Your task to perform on an android device: toggle notifications settings in the gmail app Image 0: 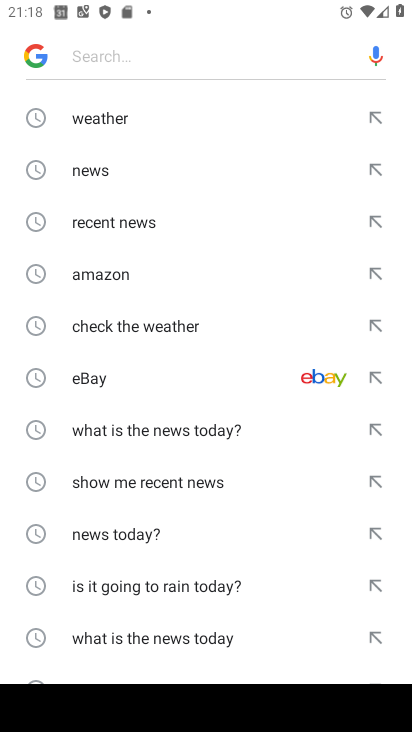
Step 0: press home button
Your task to perform on an android device: toggle notifications settings in the gmail app Image 1: 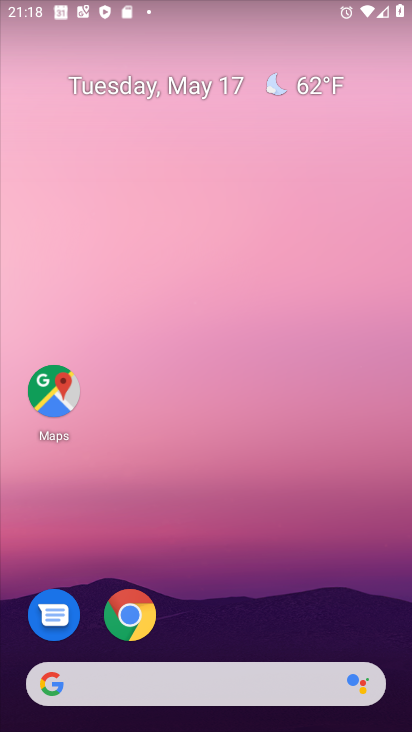
Step 1: drag from (210, 587) to (235, 58)
Your task to perform on an android device: toggle notifications settings in the gmail app Image 2: 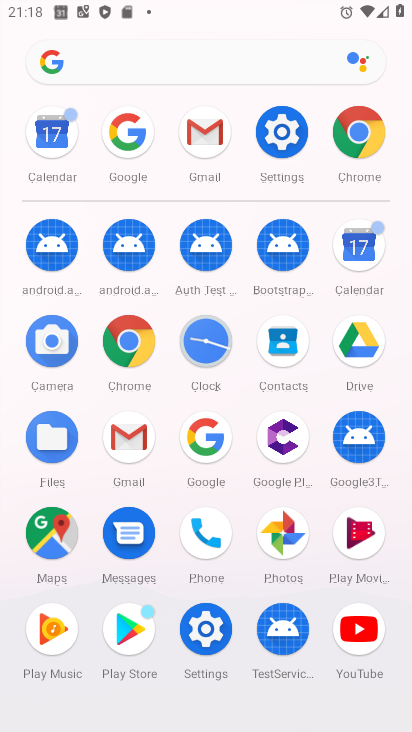
Step 2: click (202, 135)
Your task to perform on an android device: toggle notifications settings in the gmail app Image 3: 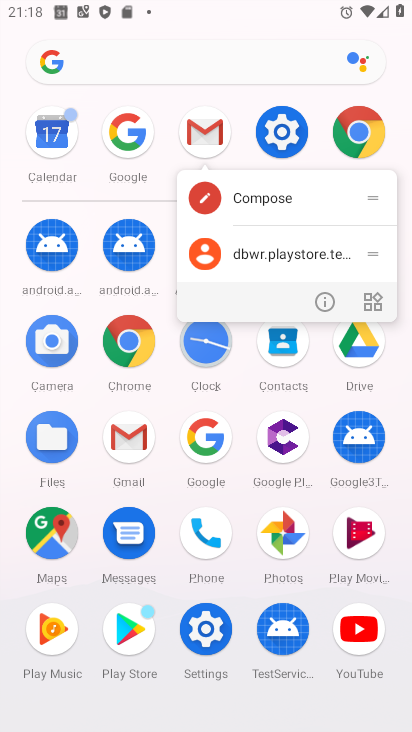
Step 3: click (328, 298)
Your task to perform on an android device: toggle notifications settings in the gmail app Image 4: 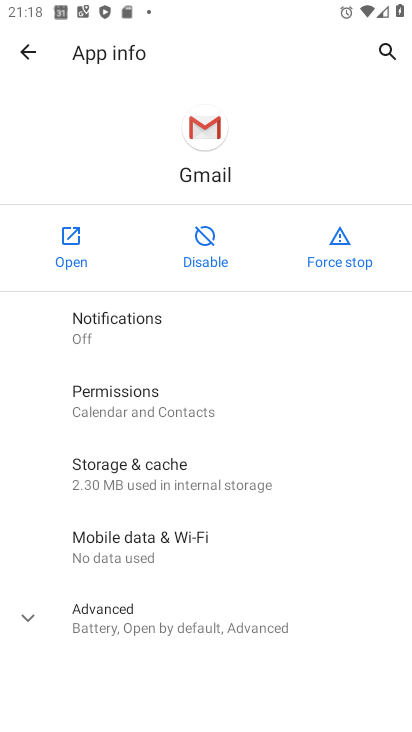
Step 4: click (159, 324)
Your task to perform on an android device: toggle notifications settings in the gmail app Image 5: 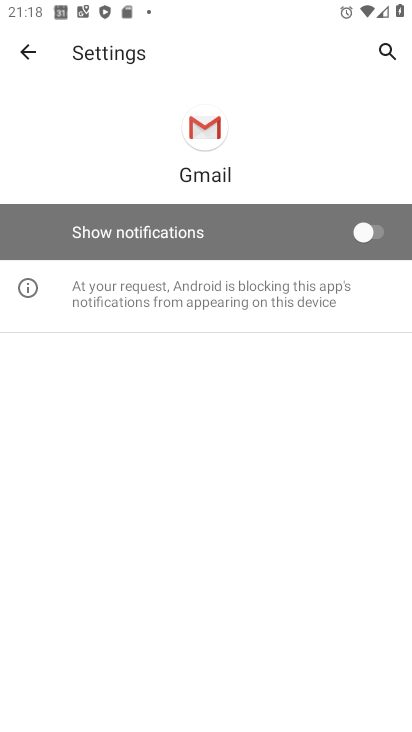
Step 5: click (373, 226)
Your task to perform on an android device: toggle notifications settings in the gmail app Image 6: 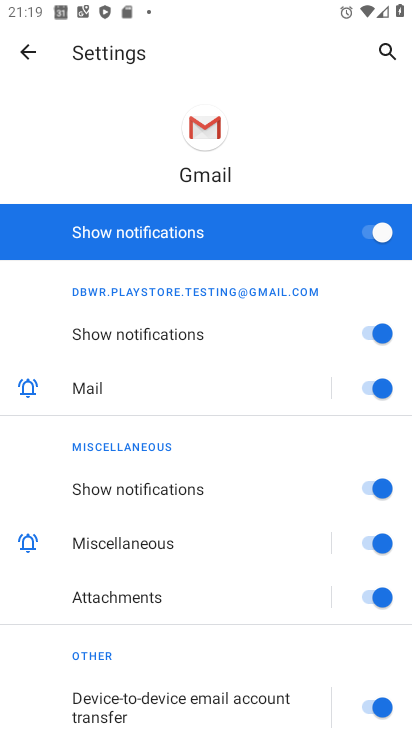
Step 6: task complete